Your task to perform on an android device: stop showing notifications on the lock screen Image 0: 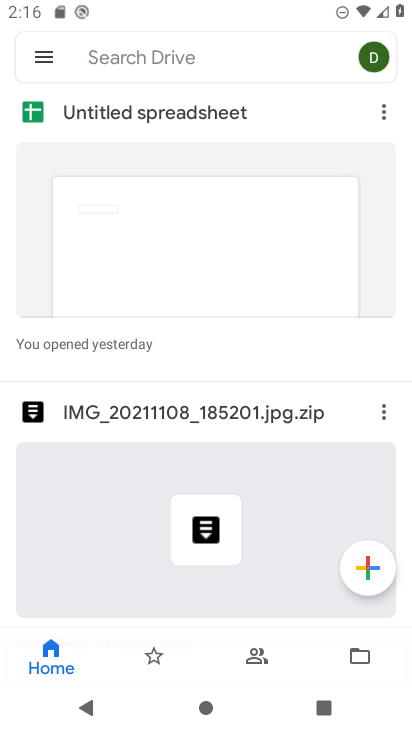
Step 0: press home button
Your task to perform on an android device: stop showing notifications on the lock screen Image 1: 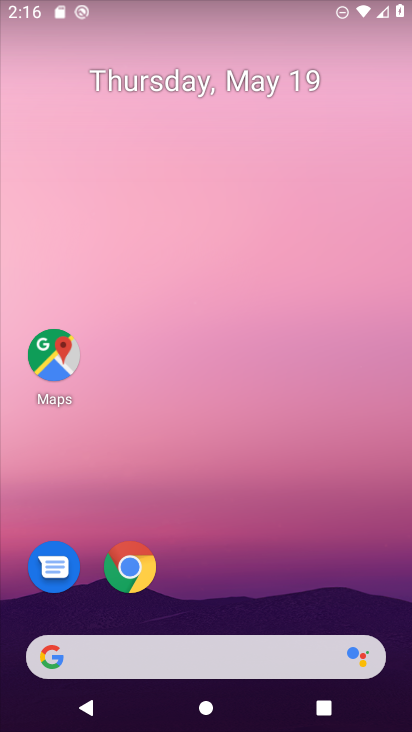
Step 1: drag from (275, 544) to (273, 25)
Your task to perform on an android device: stop showing notifications on the lock screen Image 2: 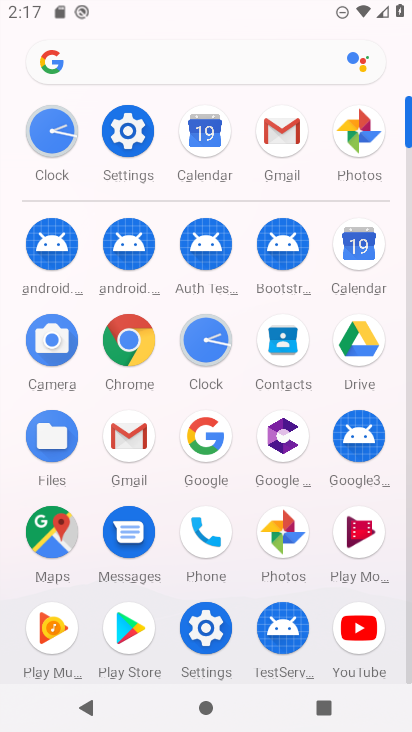
Step 2: click (127, 126)
Your task to perform on an android device: stop showing notifications on the lock screen Image 3: 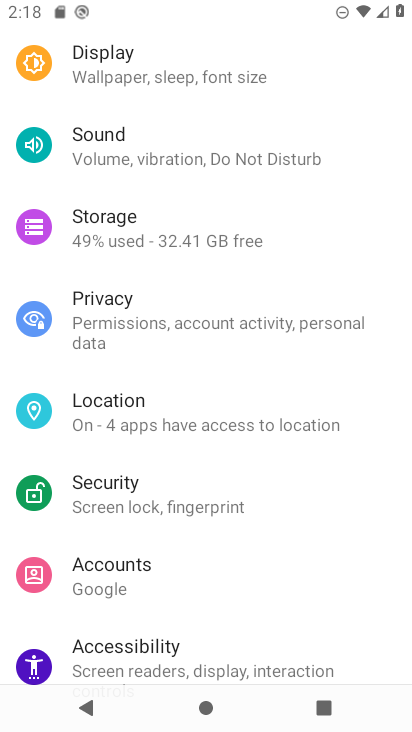
Step 3: drag from (221, 288) to (255, 600)
Your task to perform on an android device: stop showing notifications on the lock screen Image 4: 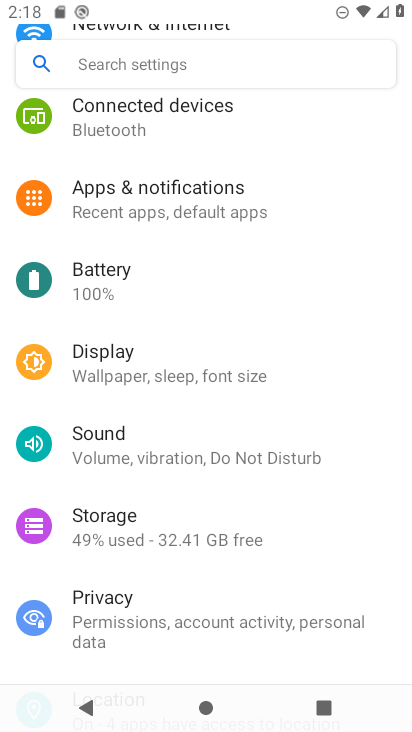
Step 4: click (206, 192)
Your task to perform on an android device: stop showing notifications on the lock screen Image 5: 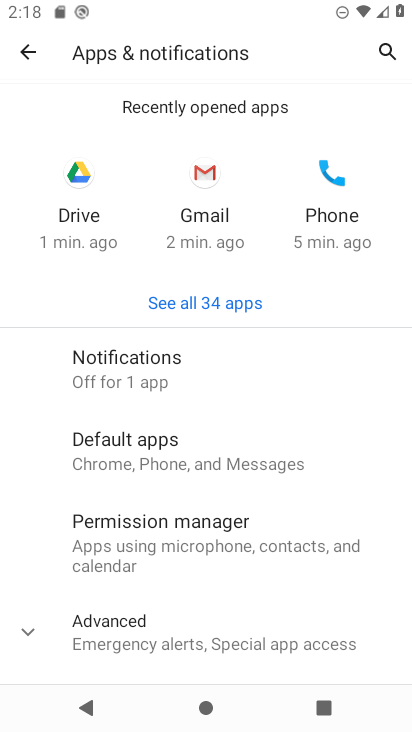
Step 5: click (173, 366)
Your task to perform on an android device: stop showing notifications on the lock screen Image 6: 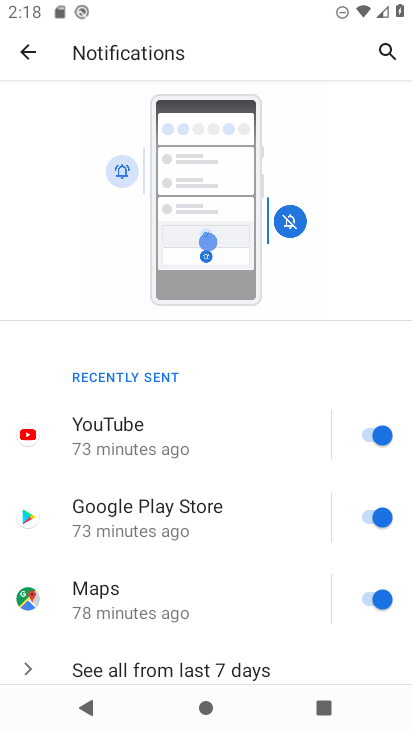
Step 6: drag from (243, 485) to (271, 195)
Your task to perform on an android device: stop showing notifications on the lock screen Image 7: 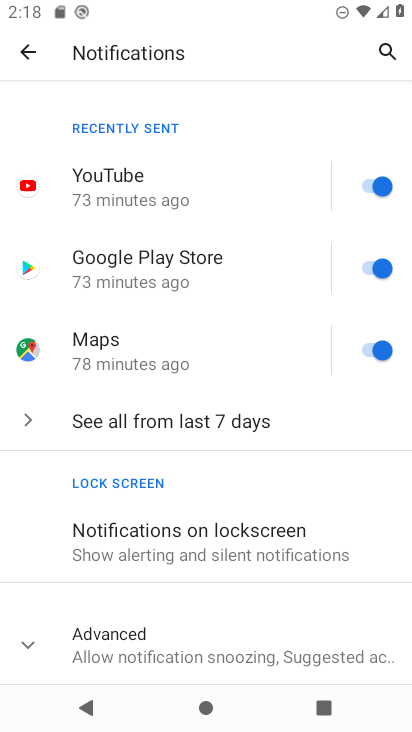
Step 7: click (201, 537)
Your task to perform on an android device: stop showing notifications on the lock screen Image 8: 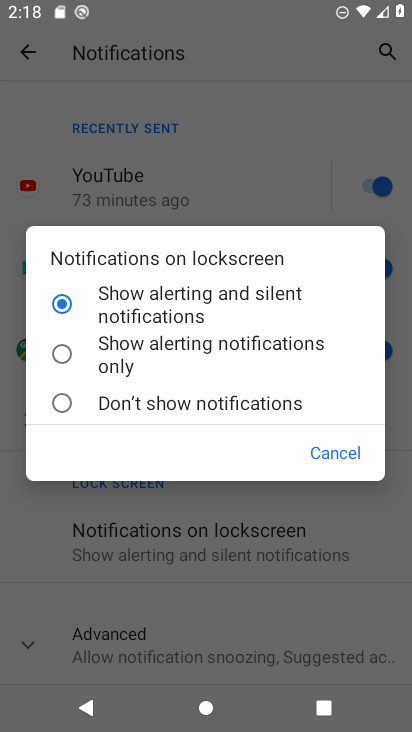
Step 8: click (60, 396)
Your task to perform on an android device: stop showing notifications on the lock screen Image 9: 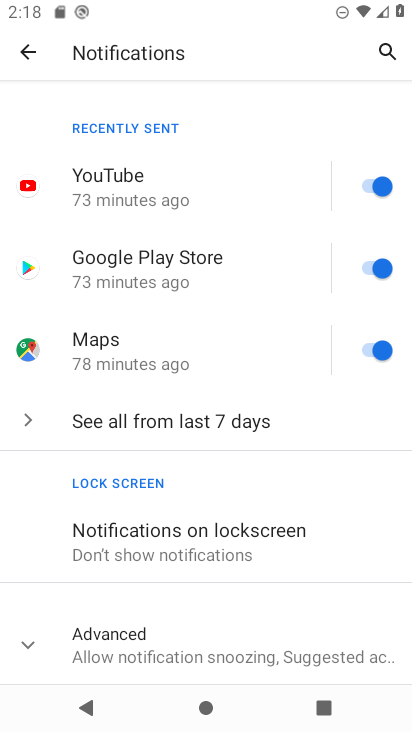
Step 9: task complete